Your task to perform on an android device: Open the web browser Image 0: 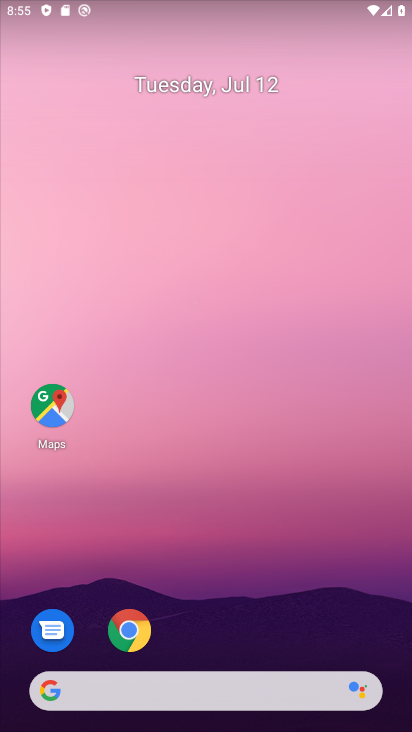
Step 0: drag from (306, 581) to (334, 1)
Your task to perform on an android device: Open the web browser Image 1: 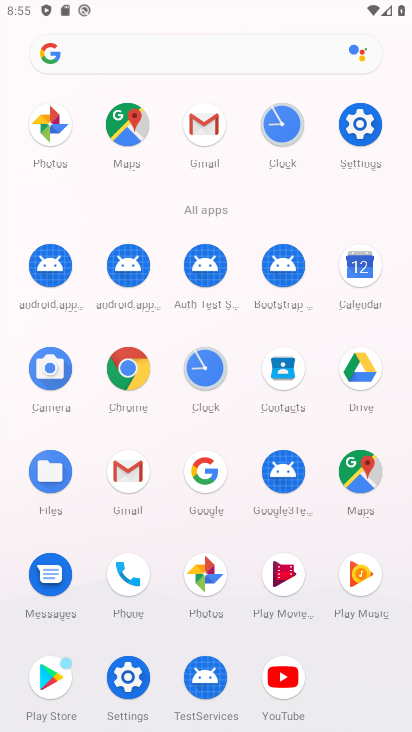
Step 1: click (130, 365)
Your task to perform on an android device: Open the web browser Image 2: 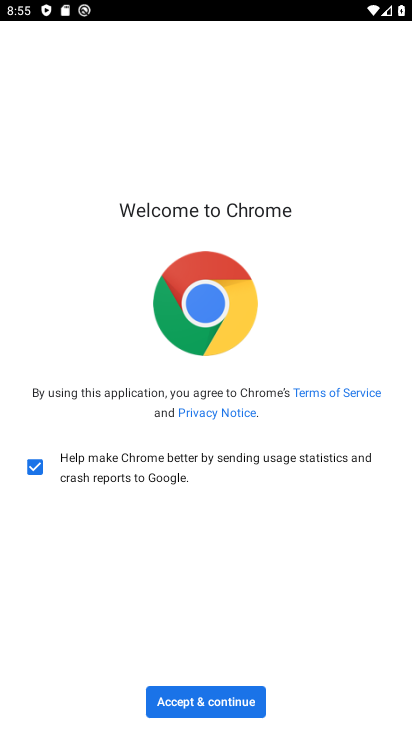
Step 2: click (190, 708)
Your task to perform on an android device: Open the web browser Image 3: 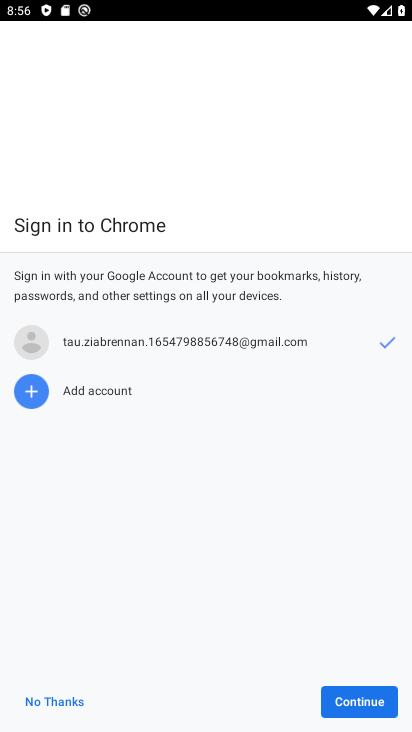
Step 3: click (354, 704)
Your task to perform on an android device: Open the web browser Image 4: 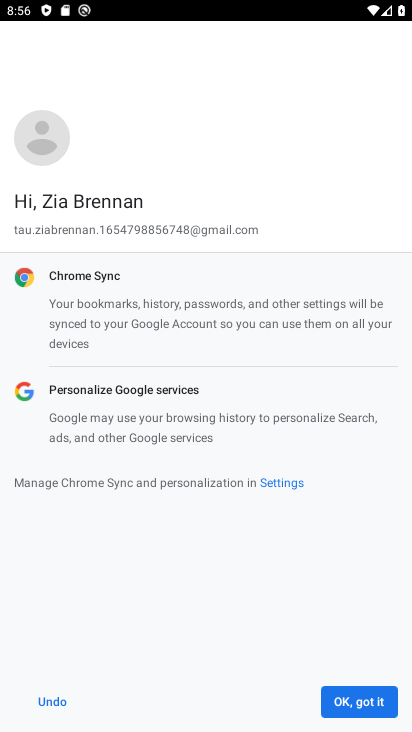
Step 4: click (354, 704)
Your task to perform on an android device: Open the web browser Image 5: 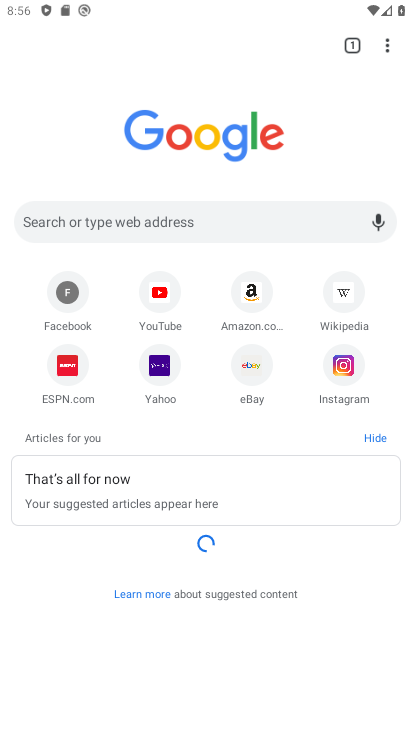
Step 5: task complete